Your task to perform on an android device: add a contact in the contacts app Image 0: 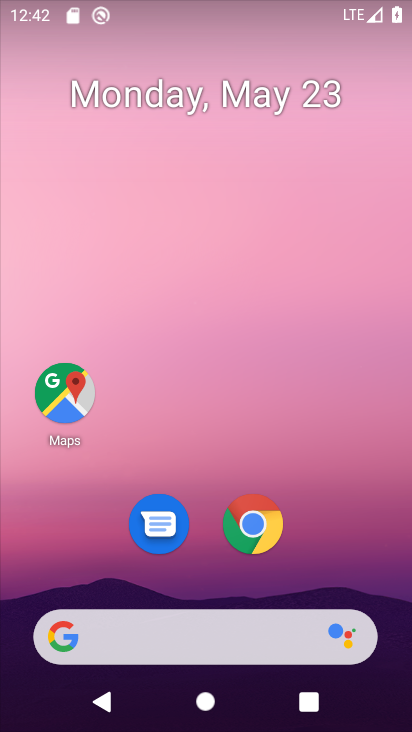
Step 0: drag from (308, 551) to (337, 65)
Your task to perform on an android device: add a contact in the contacts app Image 1: 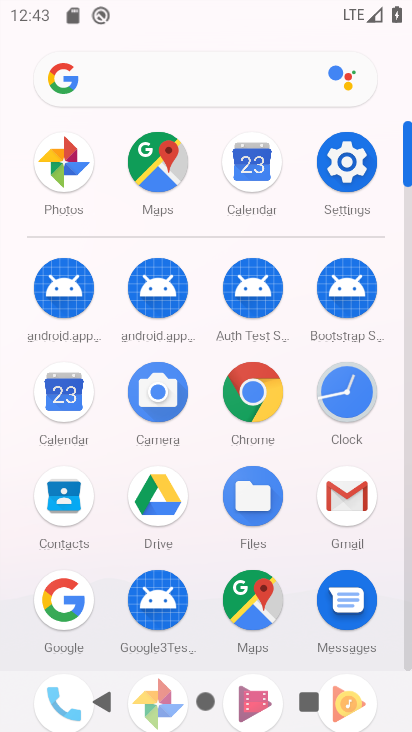
Step 1: click (73, 491)
Your task to perform on an android device: add a contact in the contacts app Image 2: 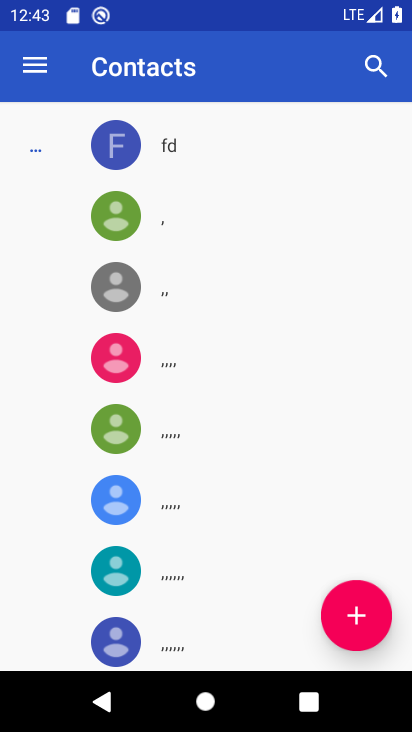
Step 2: click (360, 612)
Your task to perform on an android device: add a contact in the contacts app Image 3: 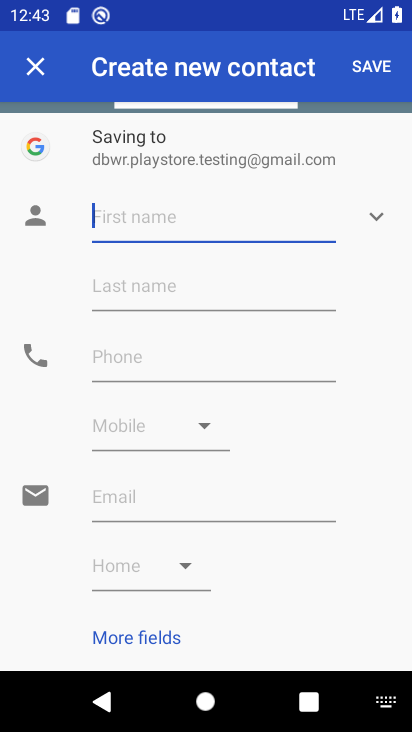
Step 3: type "Vidyottama"
Your task to perform on an android device: add a contact in the contacts app Image 4: 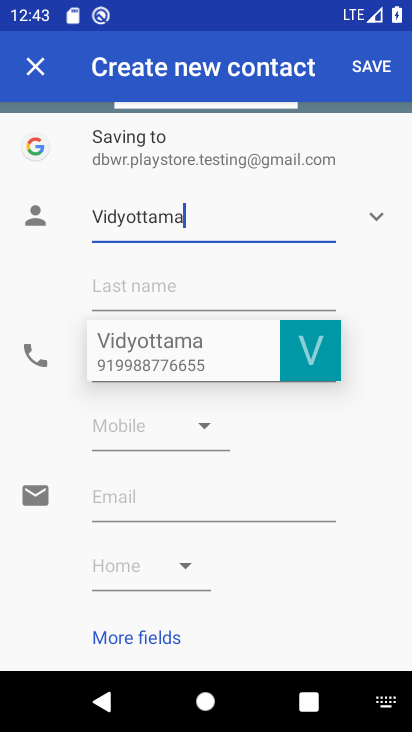
Step 4: type " "
Your task to perform on an android device: add a contact in the contacts app Image 5: 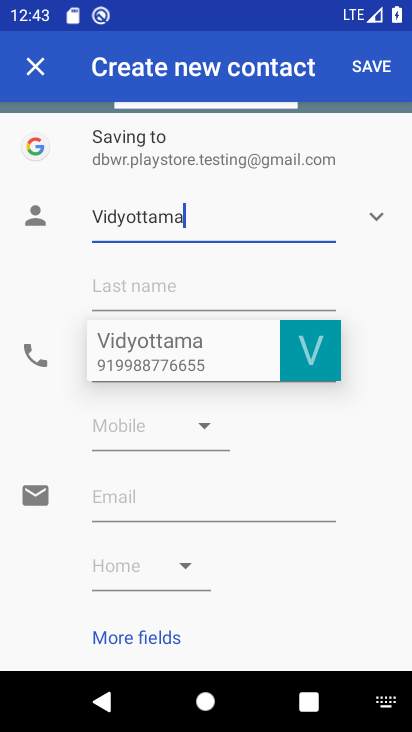
Step 5: click (356, 445)
Your task to perform on an android device: add a contact in the contacts app Image 6: 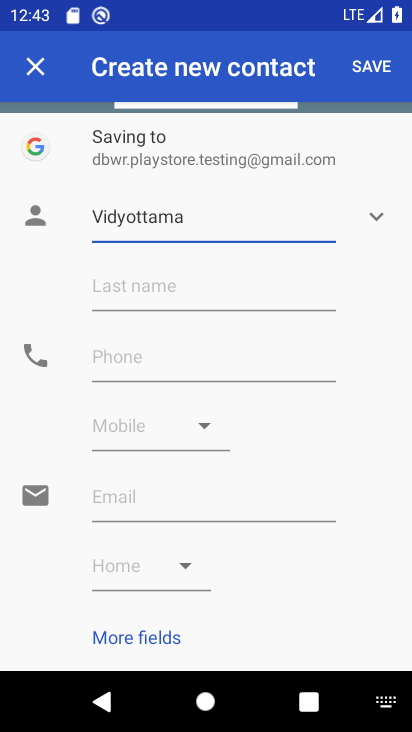
Step 6: click (298, 361)
Your task to perform on an android device: add a contact in the contacts app Image 7: 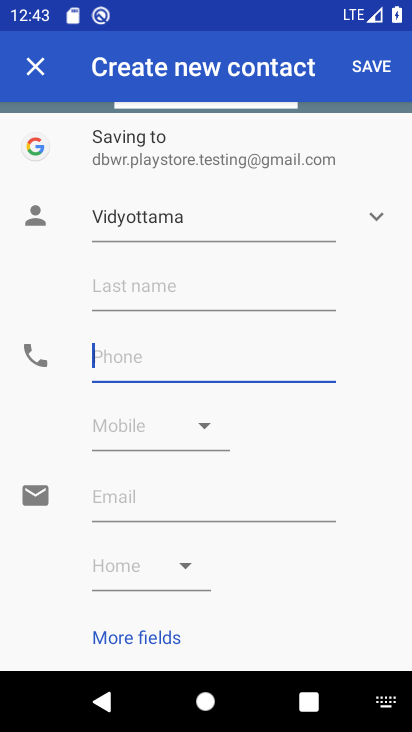
Step 7: type "01129282726"
Your task to perform on an android device: add a contact in the contacts app Image 8: 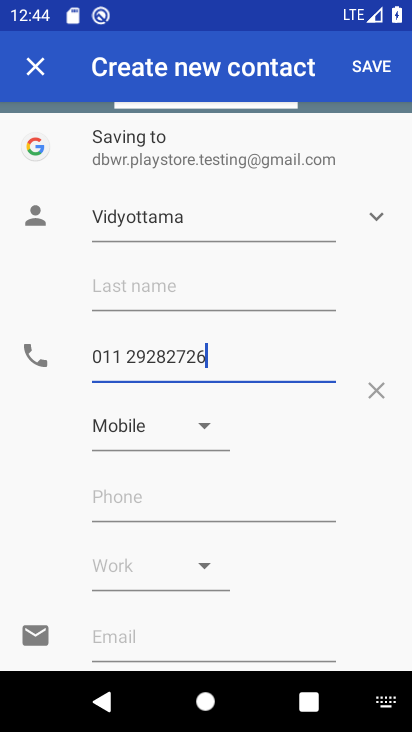
Step 8: click (379, 58)
Your task to perform on an android device: add a contact in the contacts app Image 9: 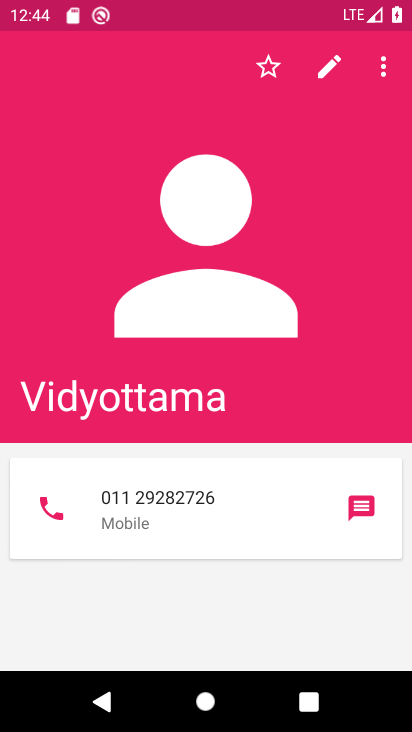
Step 9: task complete